Your task to perform on an android device: Show me productivity apps on the Play Store Image 0: 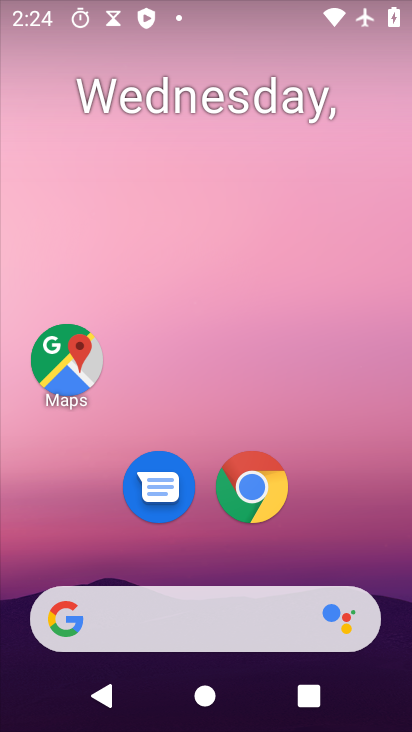
Step 0: drag from (249, 667) to (212, 0)
Your task to perform on an android device: Show me productivity apps on the Play Store Image 1: 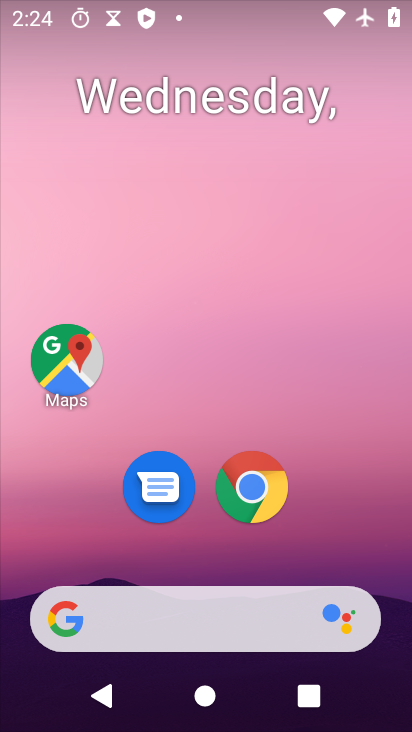
Step 1: drag from (237, 565) to (192, 63)
Your task to perform on an android device: Show me productivity apps on the Play Store Image 2: 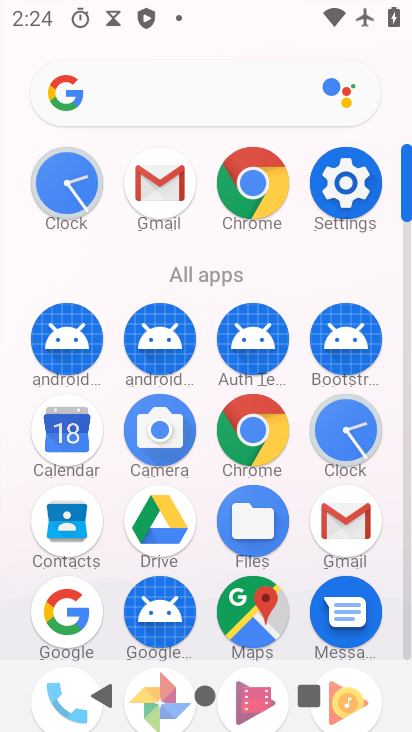
Step 2: drag from (190, 535) to (195, 171)
Your task to perform on an android device: Show me productivity apps on the Play Store Image 3: 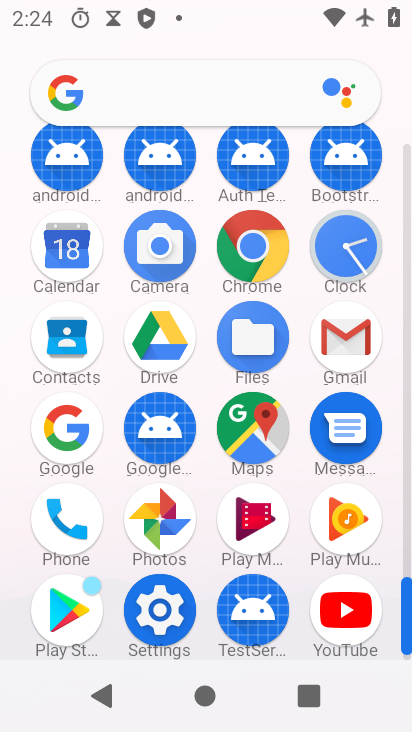
Step 3: click (76, 613)
Your task to perform on an android device: Show me productivity apps on the Play Store Image 4: 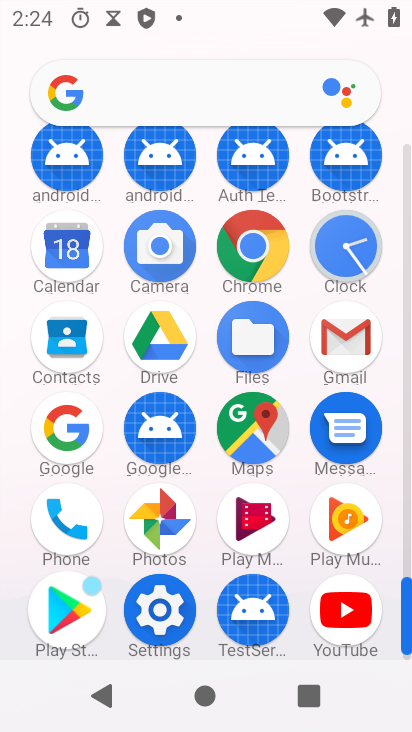
Step 4: click (76, 613)
Your task to perform on an android device: Show me productivity apps on the Play Store Image 5: 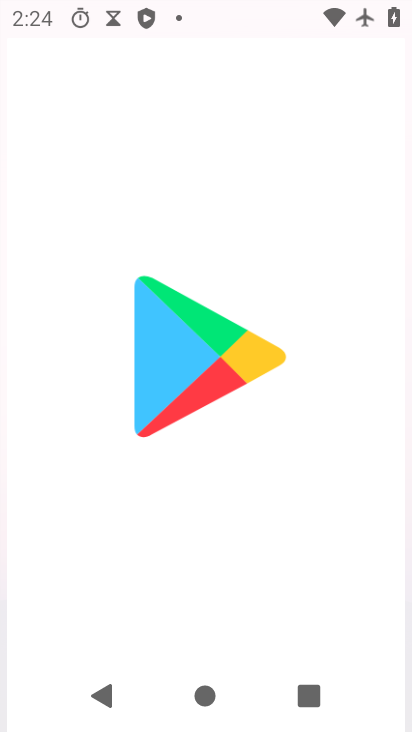
Step 5: click (76, 613)
Your task to perform on an android device: Show me productivity apps on the Play Store Image 6: 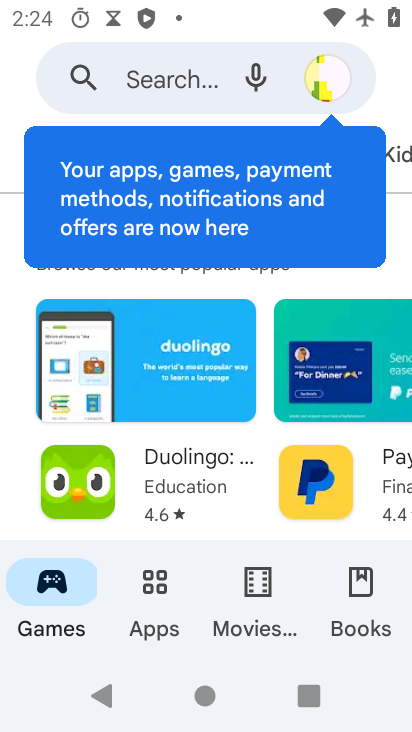
Step 6: click (145, 82)
Your task to perform on an android device: Show me productivity apps on the Play Store Image 7: 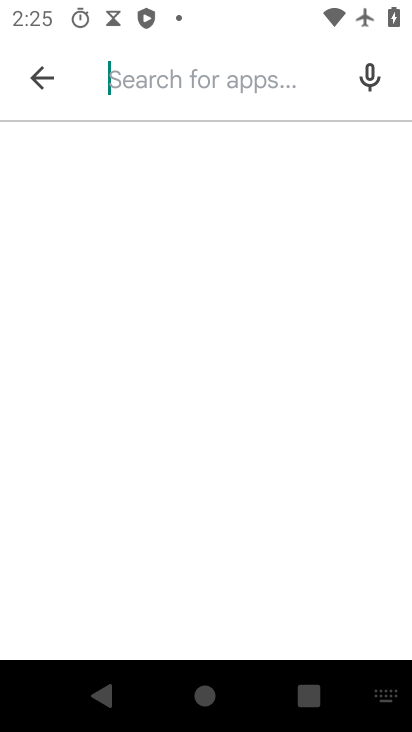
Step 7: type "PRODUCTIVITY APPS"
Your task to perform on an android device: Show me productivity apps on the Play Store Image 8: 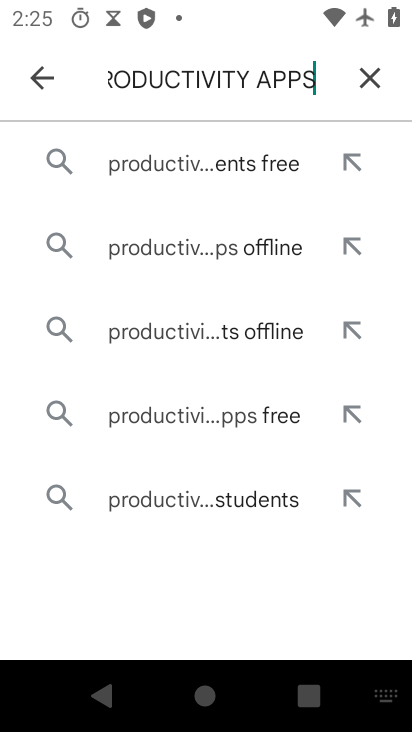
Step 8: click (231, 162)
Your task to perform on an android device: Show me productivity apps on the Play Store Image 9: 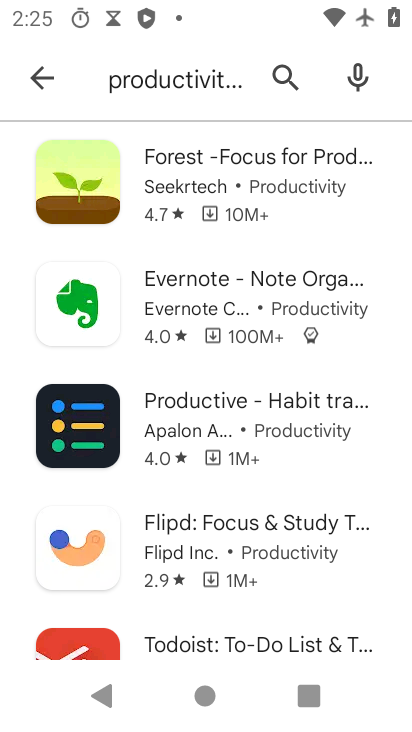
Step 9: task complete